Your task to perform on an android device: Open Google Image 0: 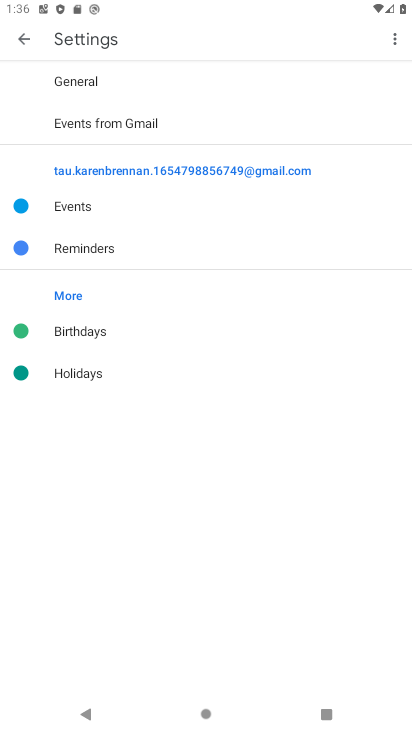
Step 0: press home button
Your task to perform on an android device: Open Google Image 1: 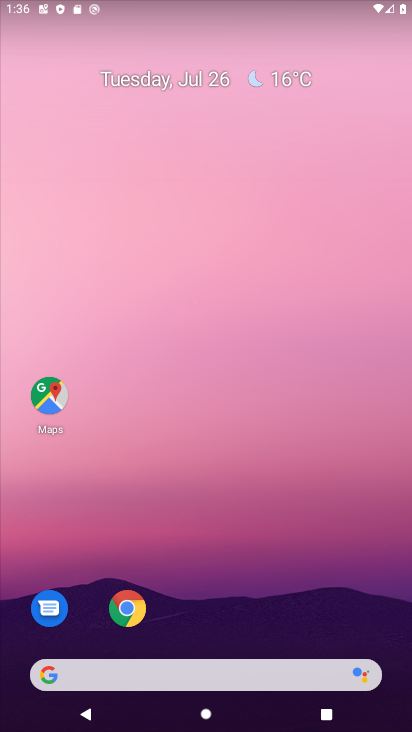
Step 1: drag from (201, 649) to (233, 216)
Your task to perform on an android device: Open Google Image 2: 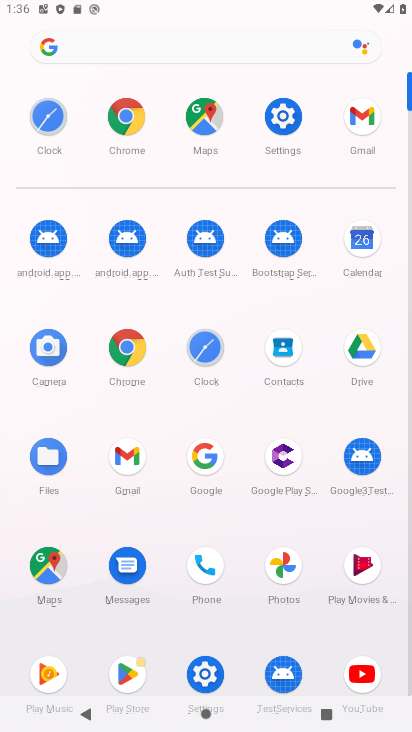
Step 2: click (193, 52)
Your task to perform on an android device: Open Google Image 3: 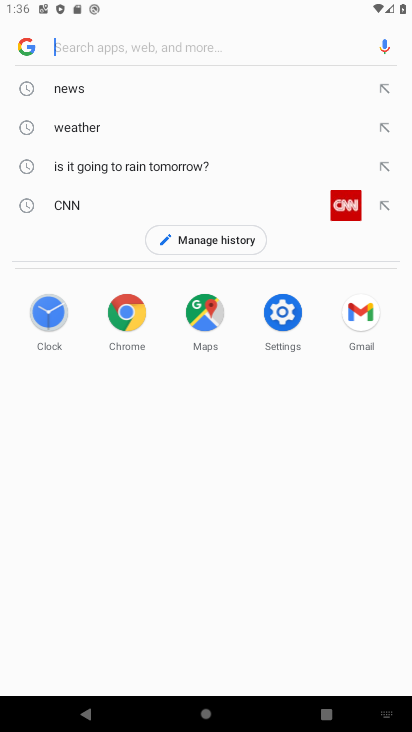
Step 3: type "google.com"
Your task to perform on an android device: Open Google Image 4: 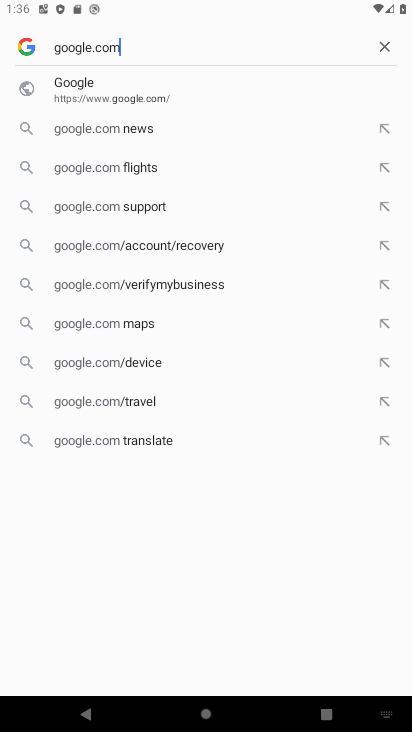
Step 4: click (122, 84)
Your task to perform on an android device: Open Google Image 5: 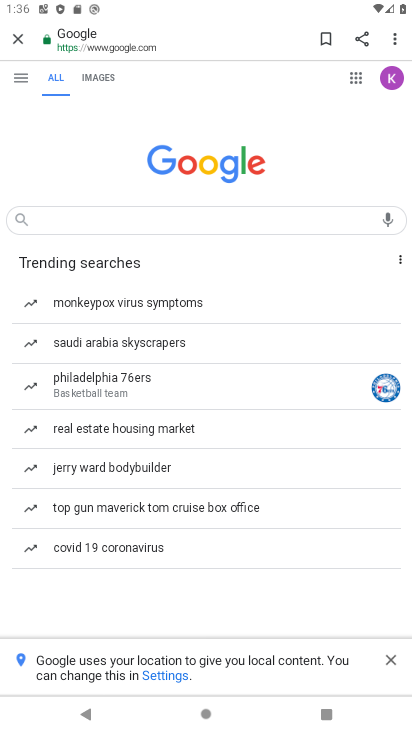
Step 5: task complete